Your task to perform on an android device: turn off location history Image 0: 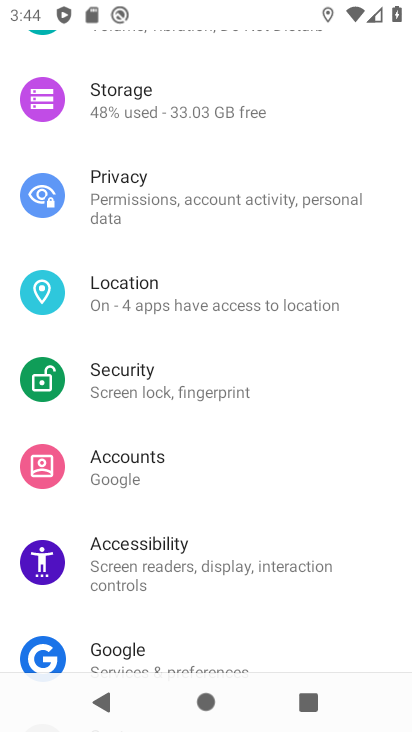
Step 0: press home button
Your task to perform on an android device: turn off location history Image 1: 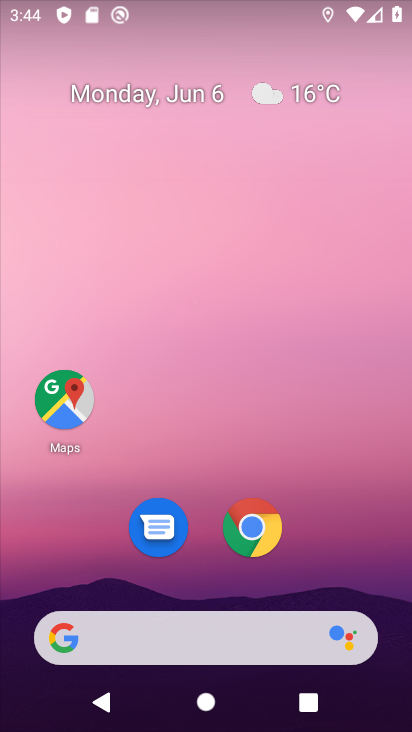
Step 1: drag from (303, 590) to (275, 208)
Your task to perform on an android device: turn off location history Image 2: 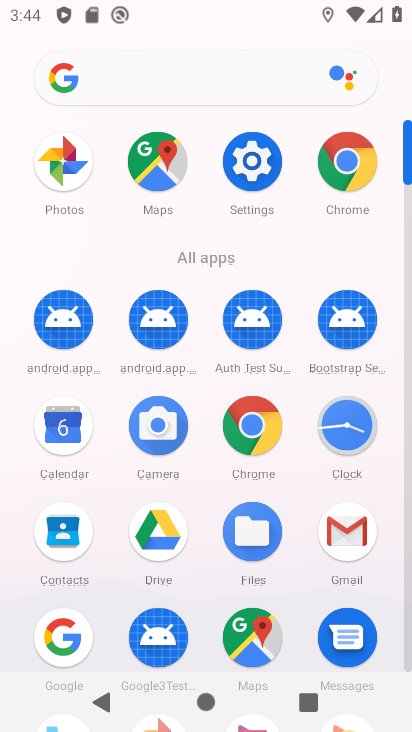
Step 2: click (248, 153)
Your task to perform on an android device: turn off location history Image 3: 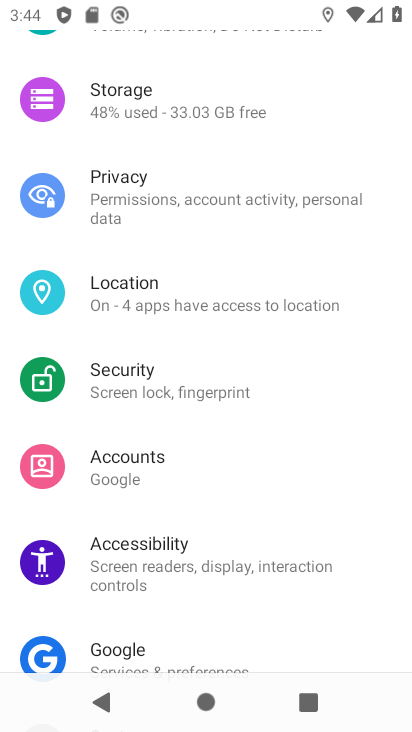
Step 3: click (181, 305)
Your task to perform on an android device: turn off location history Image 4: 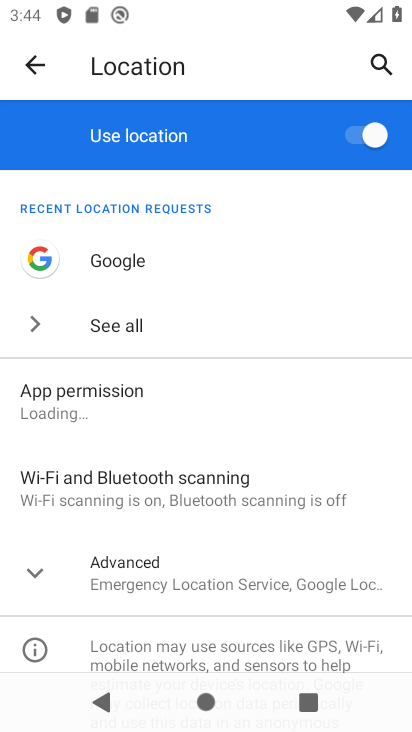
Step 4: click (169, 567)
Your task to perform on an android device: turn off location history Image 5: 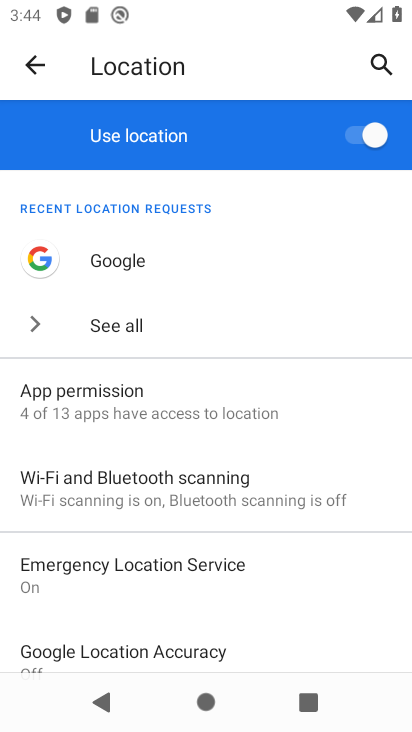
Step 5: drag from (345, 364) to (376, 100)
Your task to perform on an android device: turn off location history Image 6: 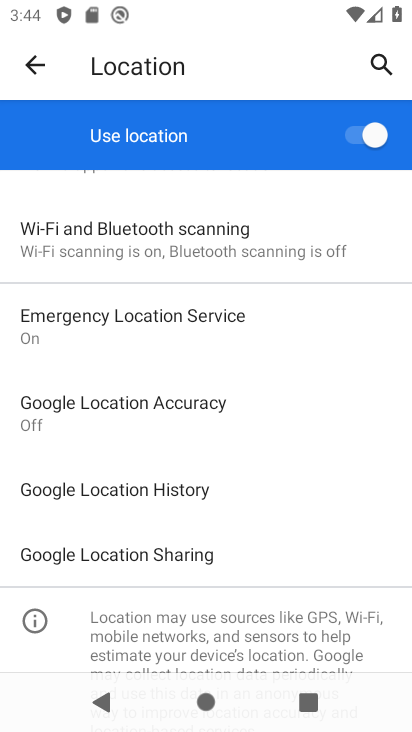
Step 6: click (173, 496)
Your task to perform on an android device: turn off location history Image 7: 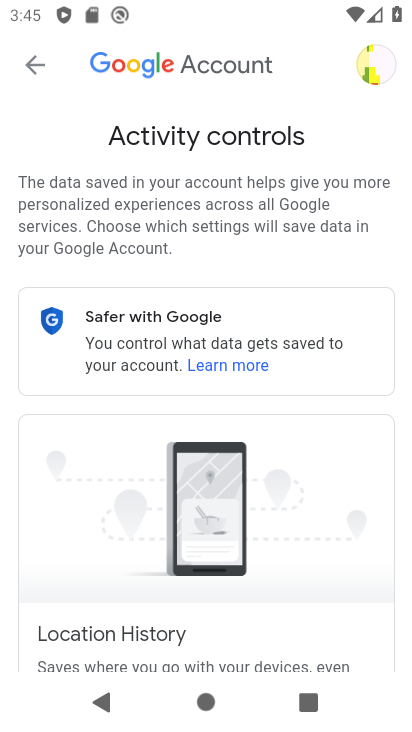
Step 7: drag from (388, 527) to (404, 317)
Your task to perform on an android device: turn off location history Image 8: 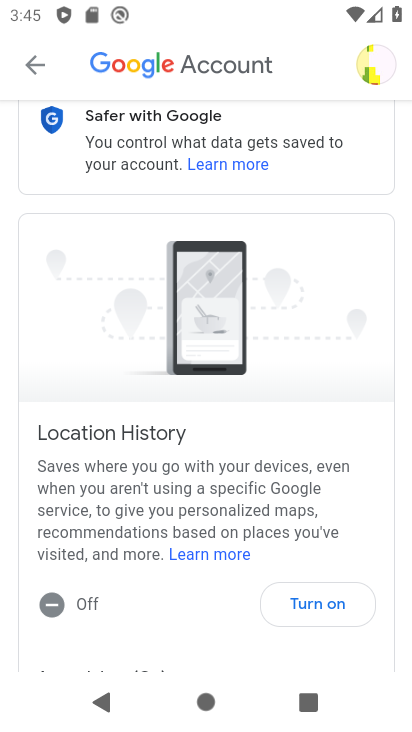
Step 8: click (82, 605)
Your task to perform on an android device: turn off location history Image 9: 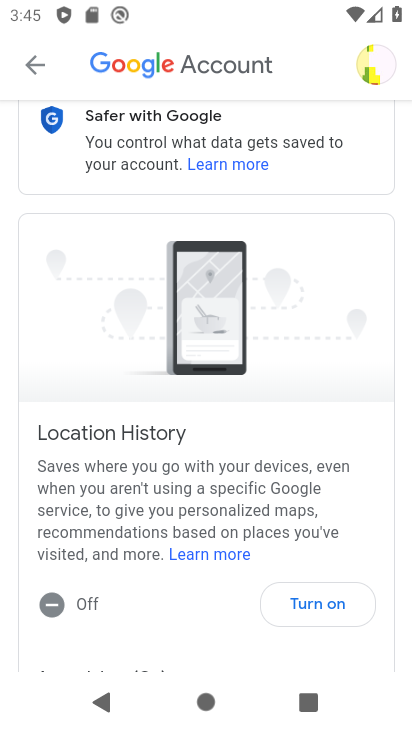
Step 9: click (82, 605)
Your task to perform on an android device: turn off location history Image 10: 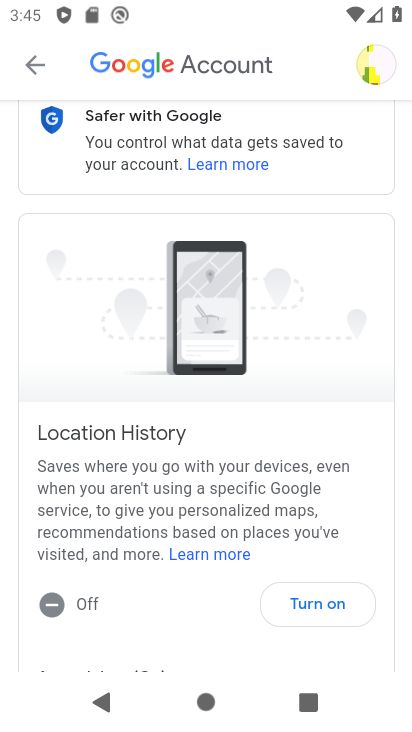
Step 10: click (82, 605)
Your task to perform on an android device: turn off location history Image 11: 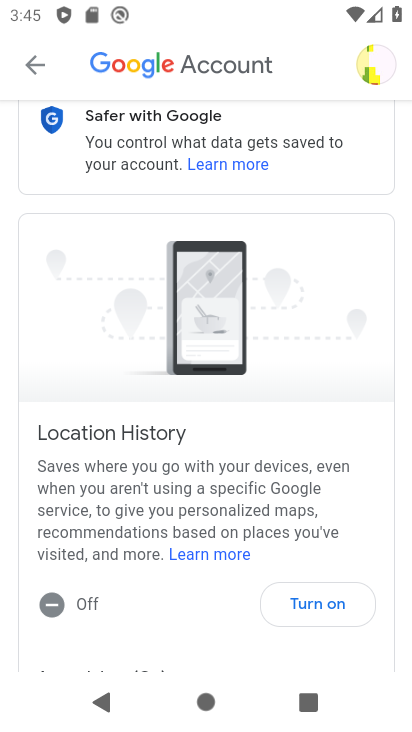
Step 11: click (82, 605)
Your task to perform on an android device: turn off location history Image 12: 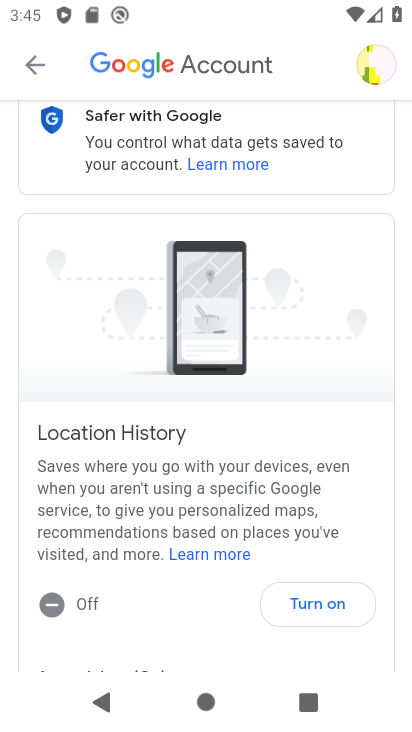
Step 12: click (48, 601)
Your task to perform on an android device: turn off location history Image 13: 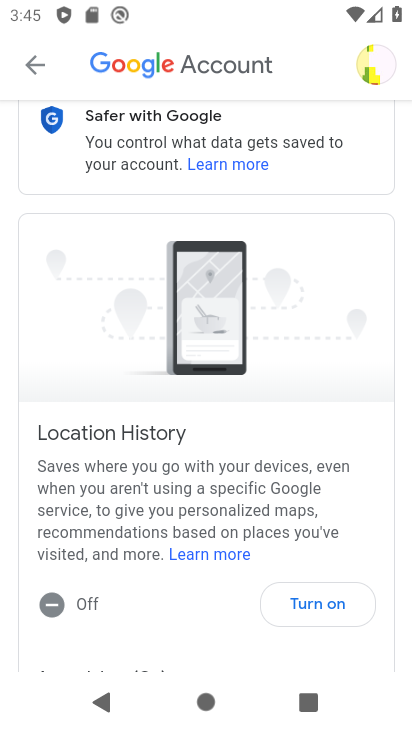
Step 13: click (48, 601)
Your task to perform on an android device: turn off location history Image 14: 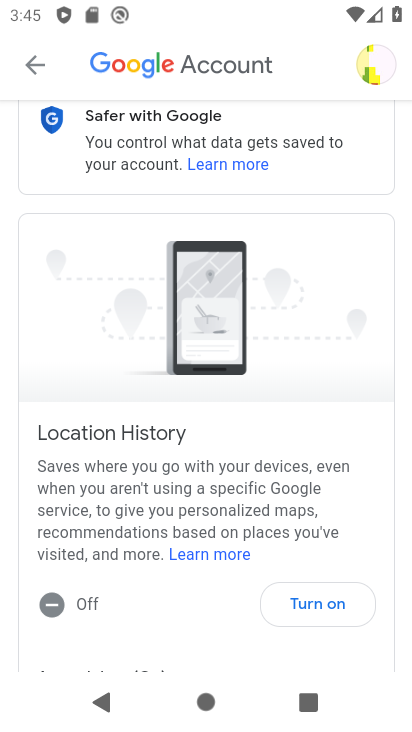
Step 14: click (48, 601)
Your task to perform on an android device: turn off location history Image 15: 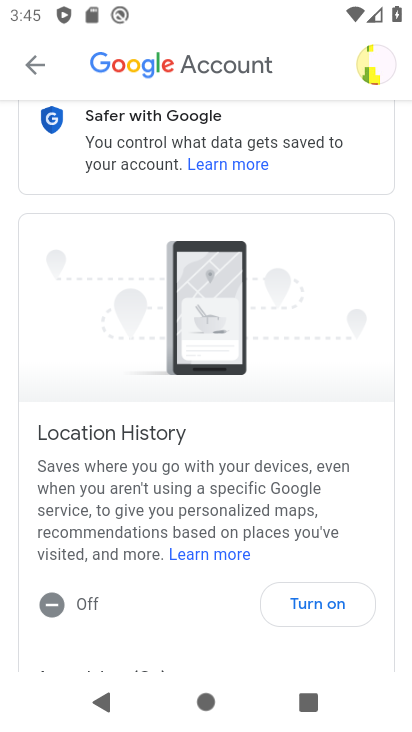
Step 15: task complete